Your task to perform on an android device: check data usage Image 0: 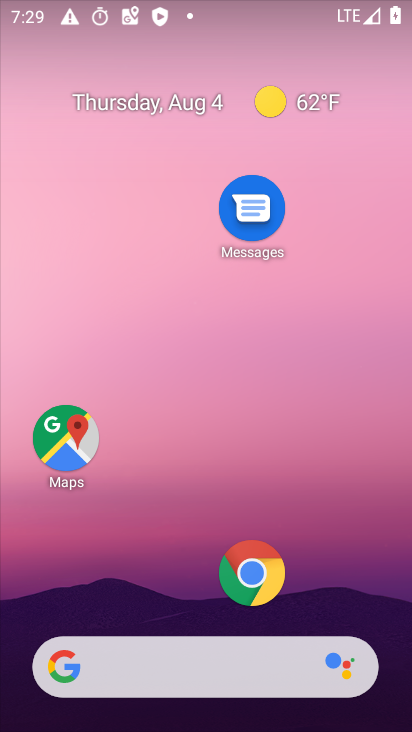
Step 0: drag from (178, 582) to (198, 160)
Your task to perform on an android device: check data usage Image 1: 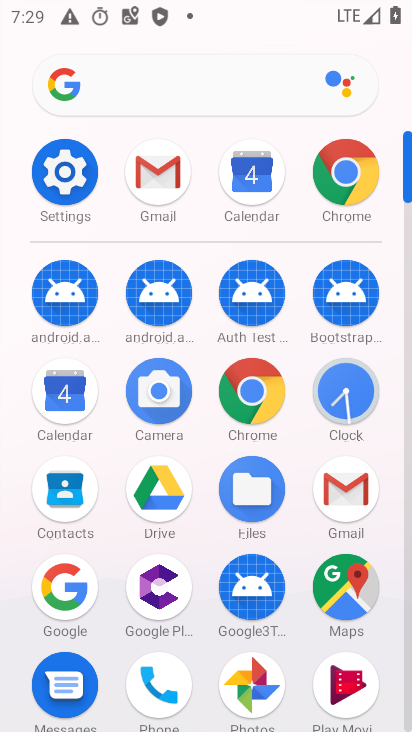
Step 1: click (70, 181)
Your task to perform on an android device: check data usage Image 2: 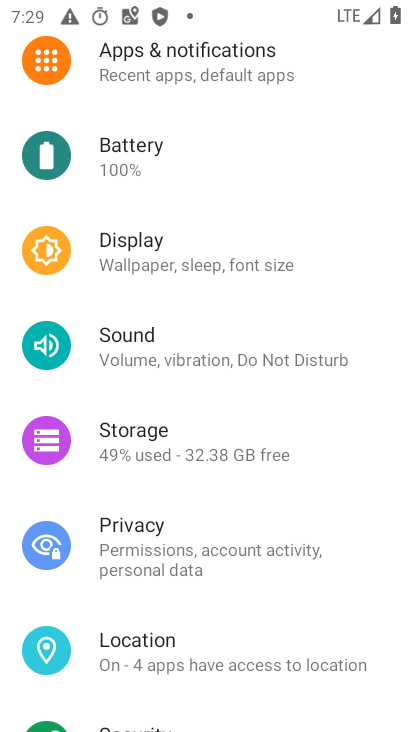
Step 2: drag from (322, 110) to (401, 577)
Your task to perform on an android device: check data usage Image 3: 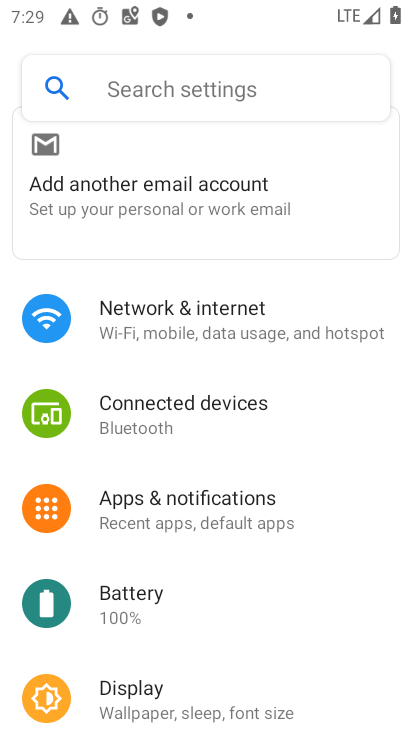
Step 3: click (214, 336)
Your task to perform on an android device: check data usage Image 4: 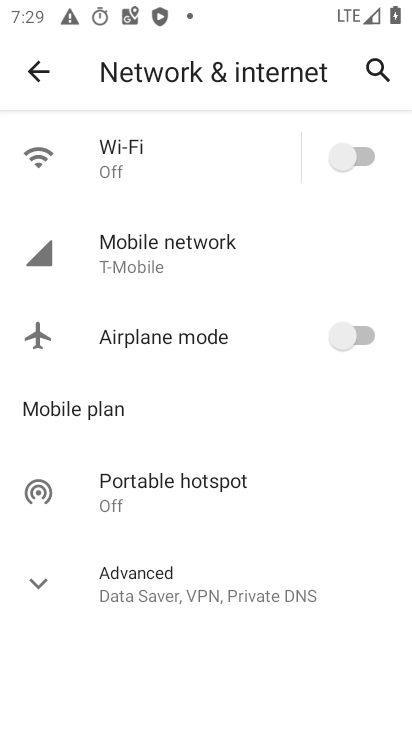
Step 4: click (172, 247)
Your task to perform on an android device: check data usage Image 5: 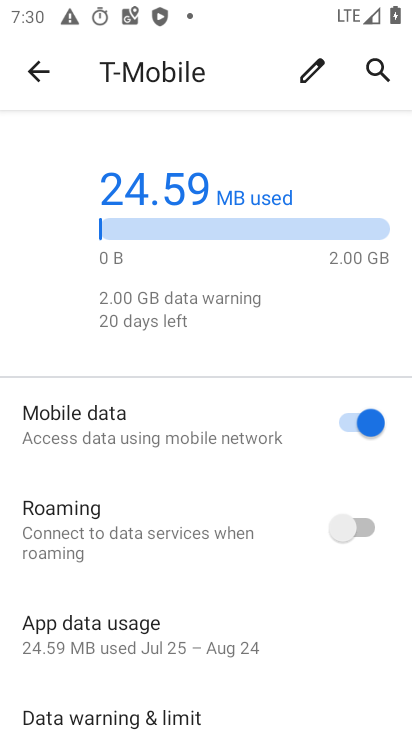
Step 5: click (98, 643)
Your task to perform on an android device: check data usage Image 6: 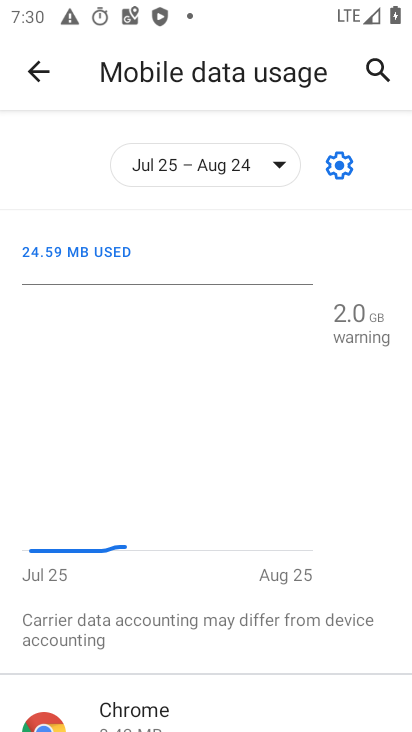
Step 6: task complete